Your task to perform on an android device: turn on wifi Image 0: 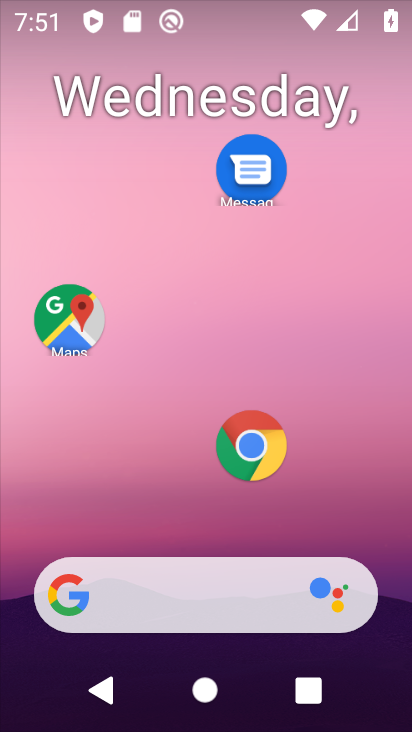
Step 0: click (191, 73)
Your task to perform on an android device: turn on wifi Image 1: 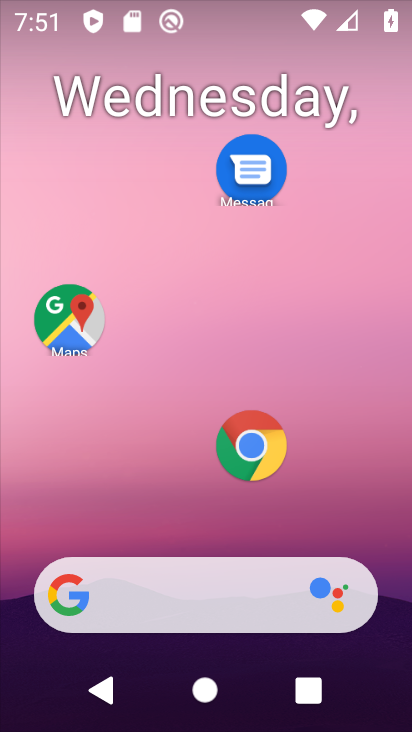
Step 1: drag from (263, 666) to (234, 124)
Your task to perform on an android device: turn on wifi Image 2: 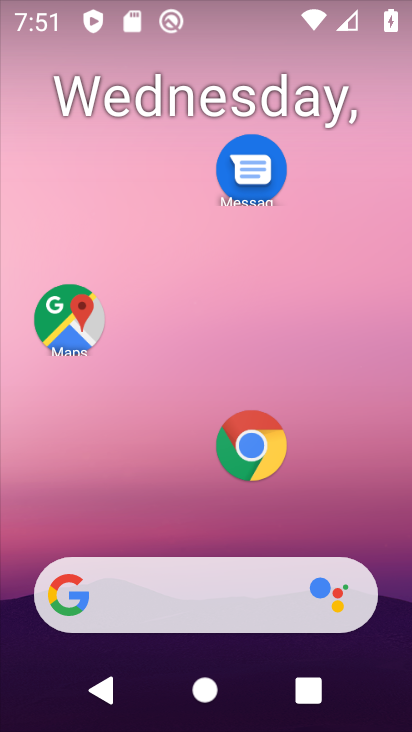
Step 2: drag from (246, 580) to (207, 230)
Your task to perform on an android device: turn on wifi Image 3: 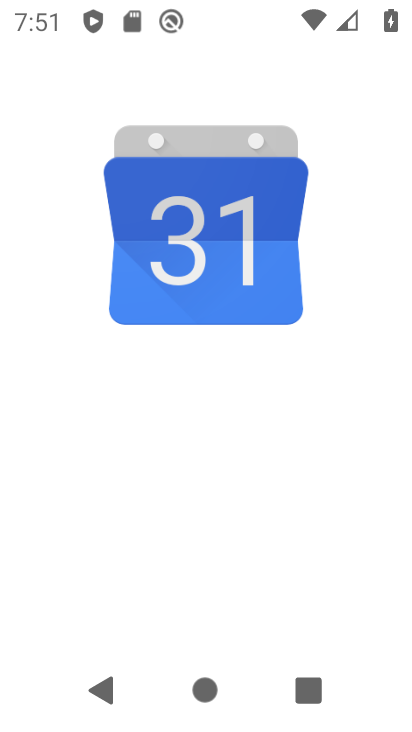
Step 3: drag from (269, 651) to (267, 204)
Your task to perform on an android device: turn on wifi Image 4: 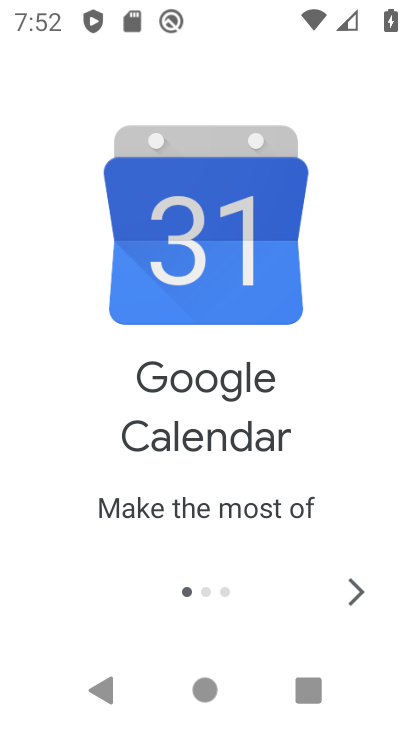
Step 4: click (348, 589)
Your task to perform on an android device: turn on wifi Image 5: 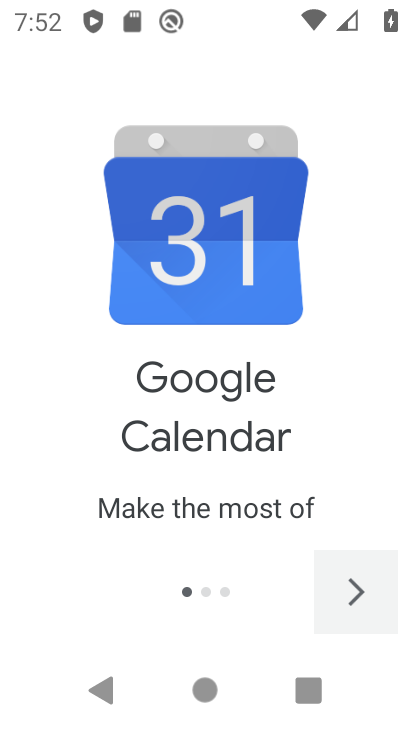
Step 5: click (346, 591)
Your task to perform on an android device: turn on wifi Image 6: 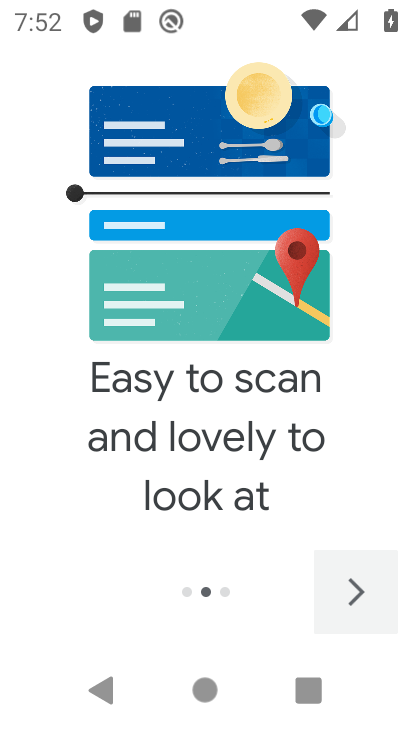
Step 6: click (346, 591)
Your task to perform on an android device: turn on wifi Image 7: 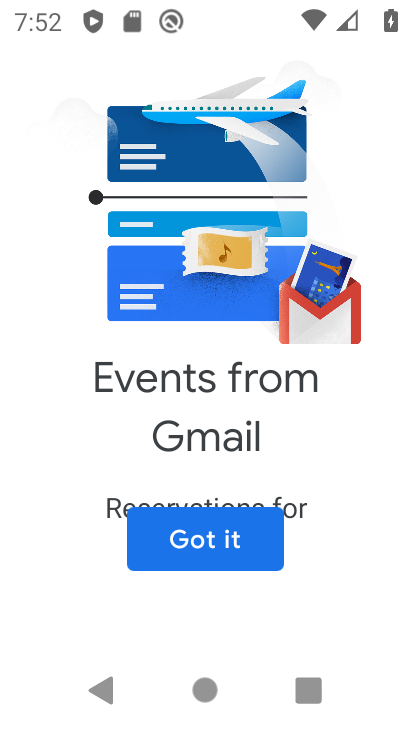
Step 7: click (351, 590)
Your task to perform on an android device: turn on wifi Image 8: 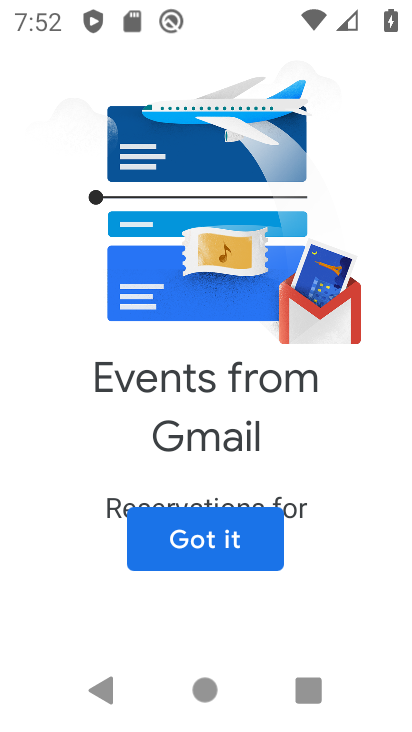
Step 8: click (203, 537)
Your task to perform on an android device: turn on wifi Image 9: 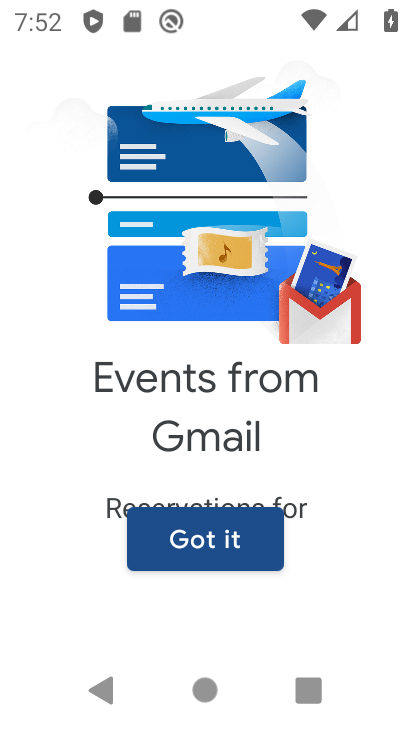
Step 9: click (214, 517)
Your task to perform on an android device: turn on wifi Image 10: 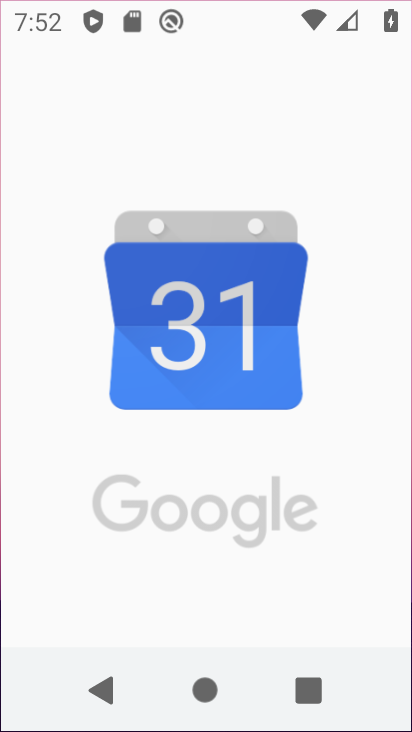
Step 10: click (216, 531)
Your task to perform on an android device: turn on wifi Image 11: 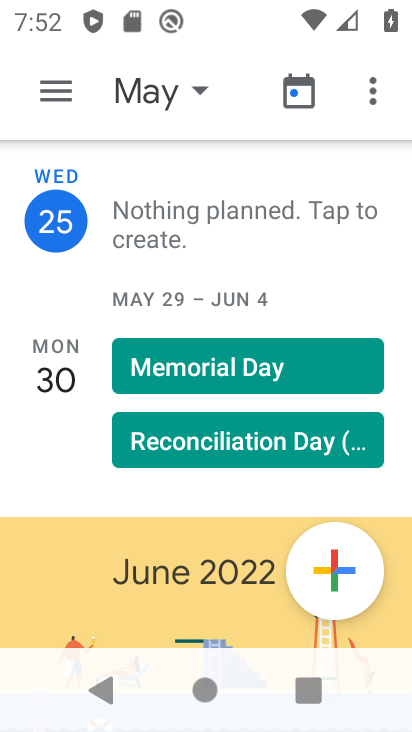
Step 11: press back button
Your task to perform on an android device: turn on wifi Image 12: 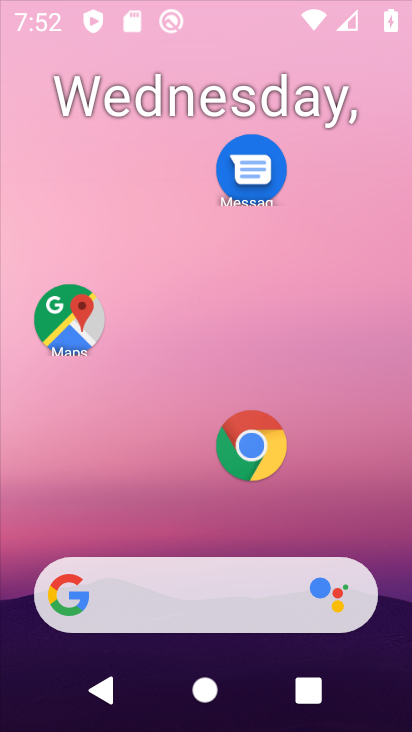
Step 12: press home button
Your task to perform on an android device: turn on wifi Image 13: 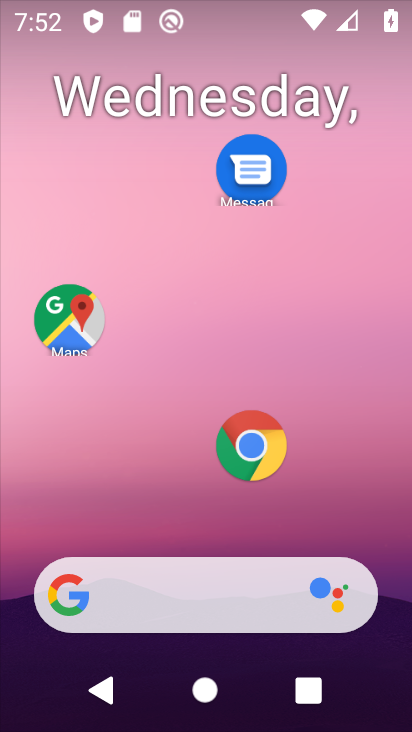
Step 13: drag from (250, 624) to (210, 169)
Your task to perform on an android device: turn on wifi Image 14: 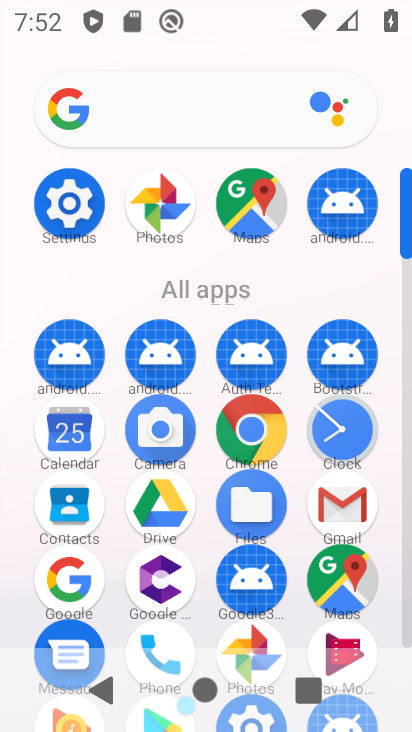
Step 14: click (69, 200)
Your task to perform on an android device: turn on wifi Image 15: 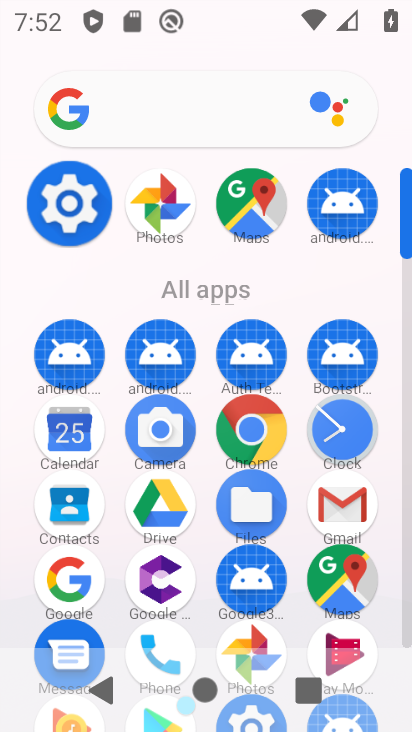
Step 15: click (70, 200)
Your task to perform on an android device: turn on wifi Image 16: 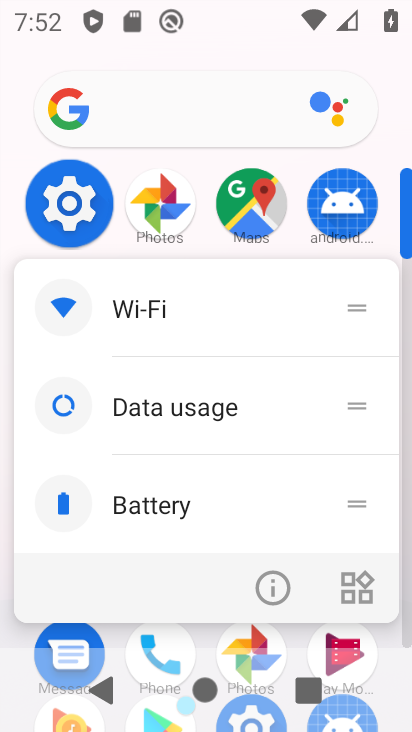
Step 16: click (73, 199)
Your task to perform on an android device: turn on wifi Image 17: 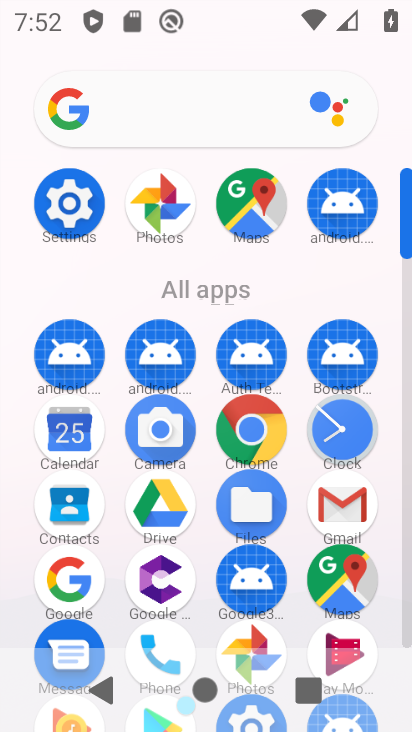
Step 17: click (73, 197)
Your task to perform on an android device: turn on wifi Image 18: 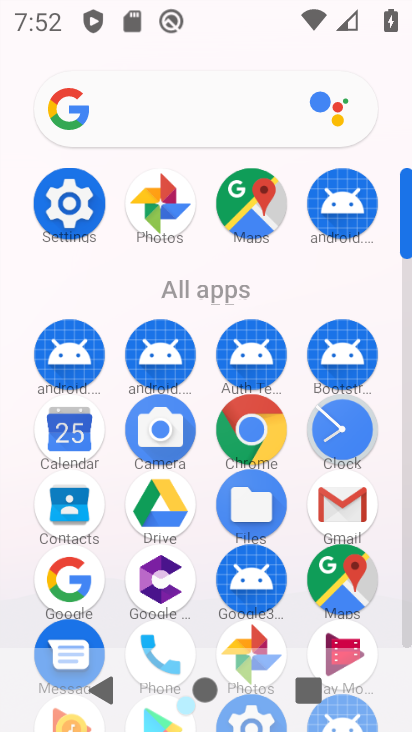
Step 18: click (73, 197)
Your task to perform on an android device: turn on wifi Image 19: 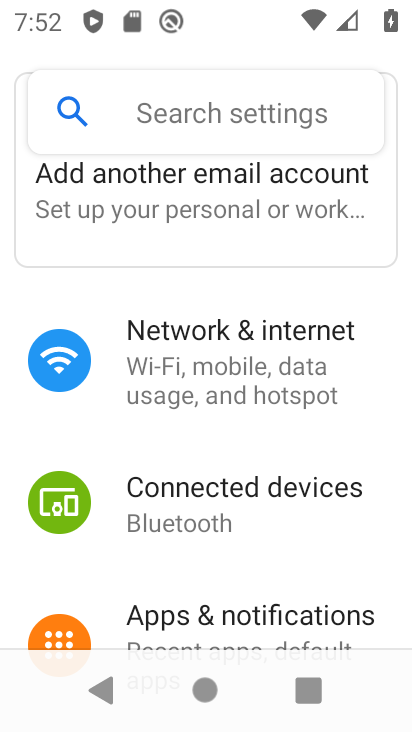
Step 19: click (214, 371)
Your task to perform on an android device: turn on wifi Image 20: 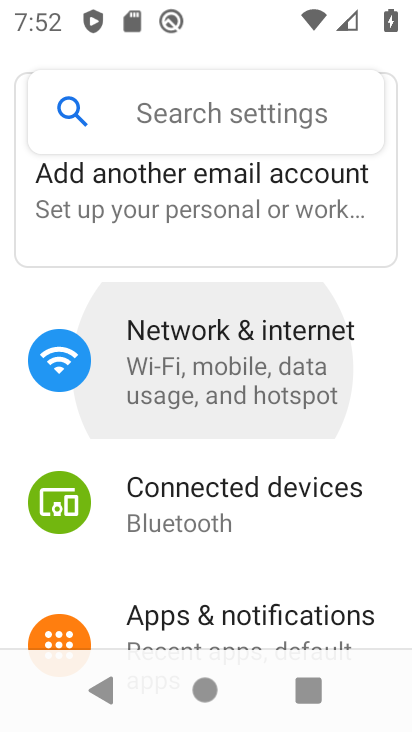
Step 20: click (214, 371)
Your task to perform on an android device: turn on wifi Image 21: 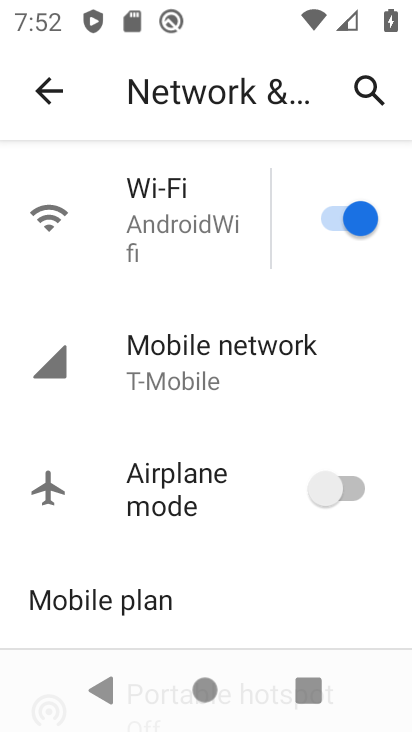
Step 21: task complete